Your task to perform on an android device: change your default location settings in chrome Image 0: 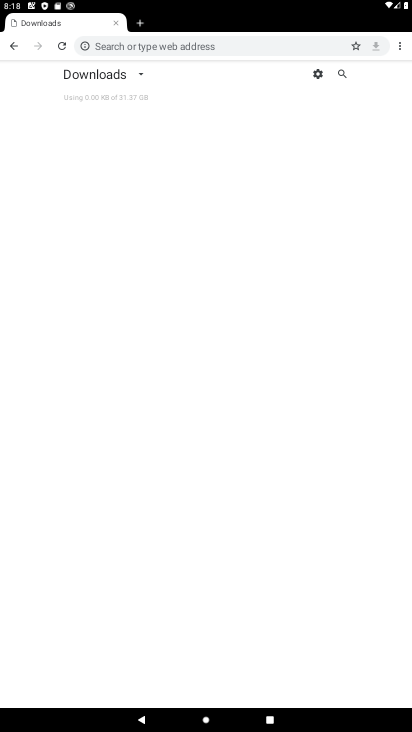
Step 0: press home button
Your task to perform on an android device: change your default location settings in chrome Image 1: 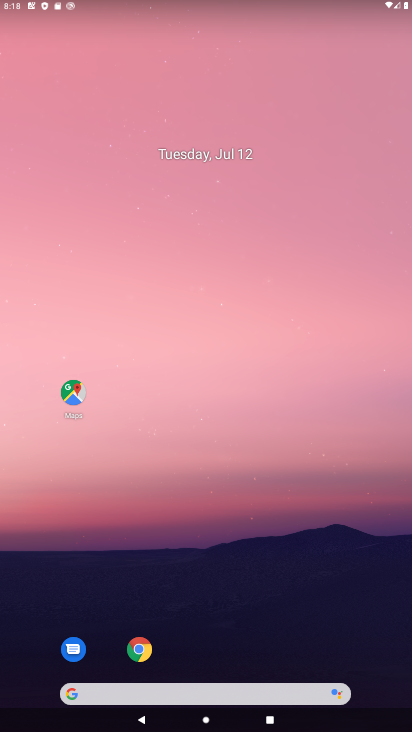
Step 1: click (138, 652)
Your task to perform on an android device: change your default location settings in chrome Image 2: 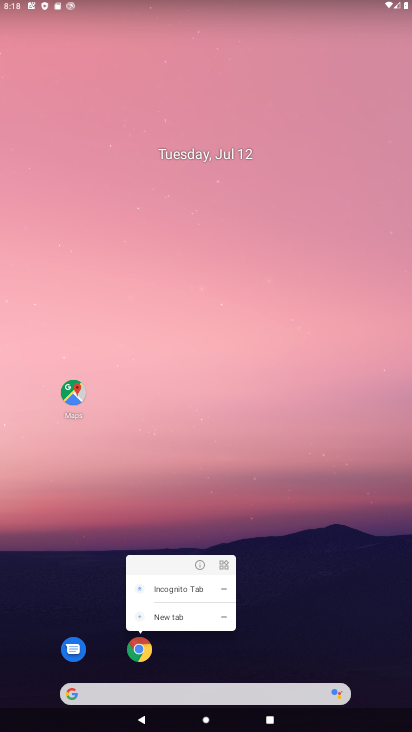
Step 2: click (137, 651)
Your task to perform on an android device: change your default location settings in chrome Image 3: 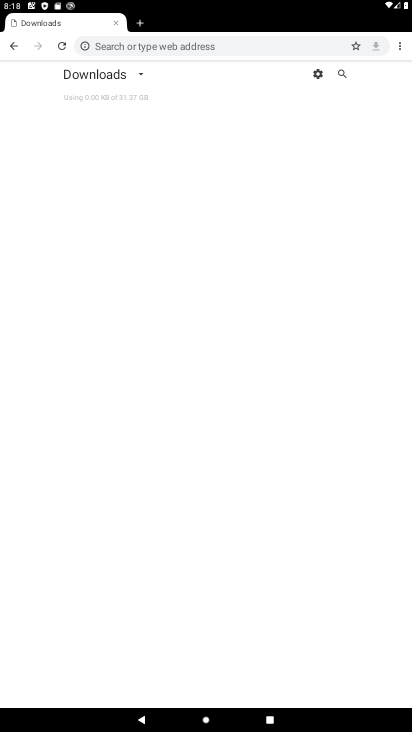
Step 3: click (399, 49)
Your task to perform on an android device: change your default location settings in chrome Image 4: 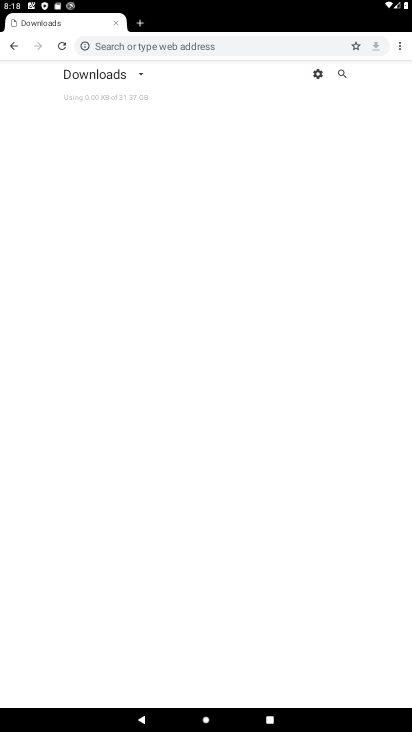
Step 4: click (399, 49)
Your task to perform on an android device: change your default location settings in chrome Image 5: 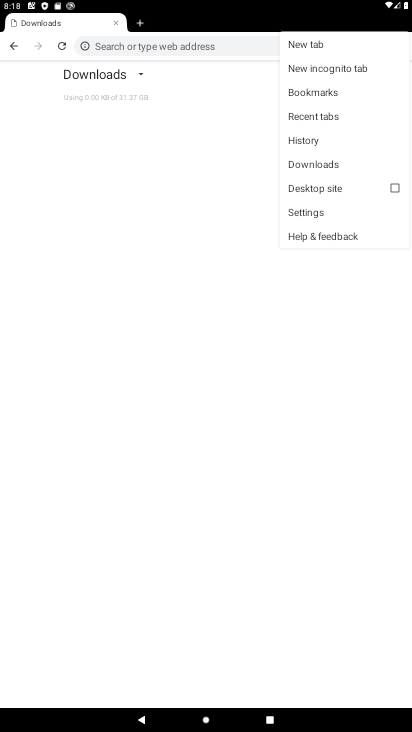
Step 5: click (313, 213)
Your task to perform on an android device: change your default location settings in chrome Image 6: 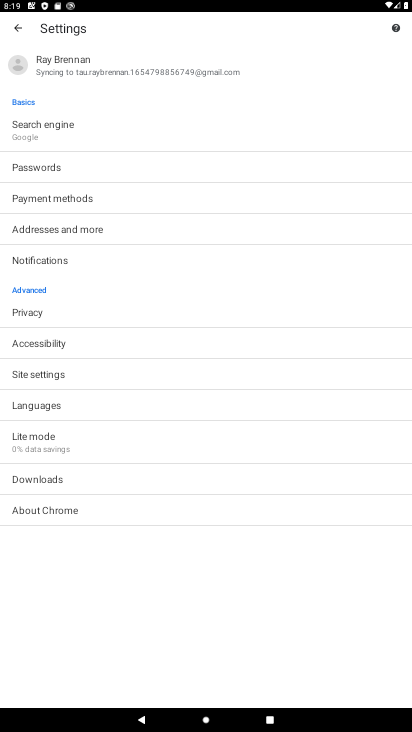
Step 6: click (36, 373)
Your task to perform on an android device: change your default location settings in chrome Image 7: 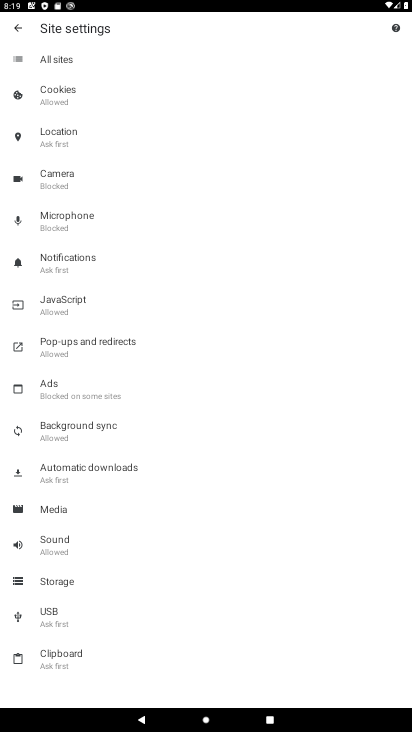
Step 7: click (79, 142)
Your task to perform on an android device: change your default location settings in chrome Image 8: 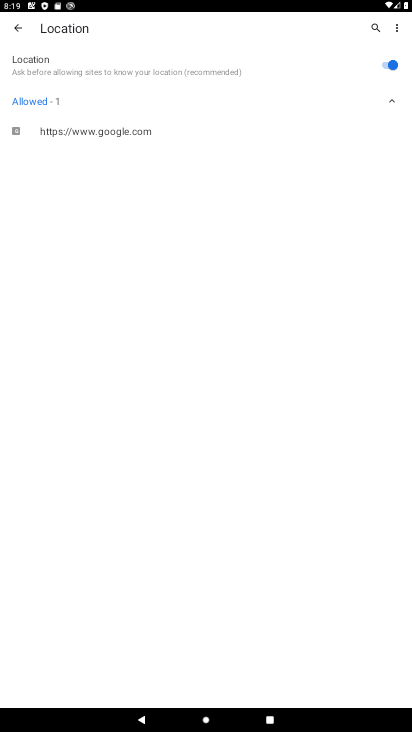
Step 8: click (391, 62)
Your task to perform on an android device: change your default location settings in chrome Image 9: 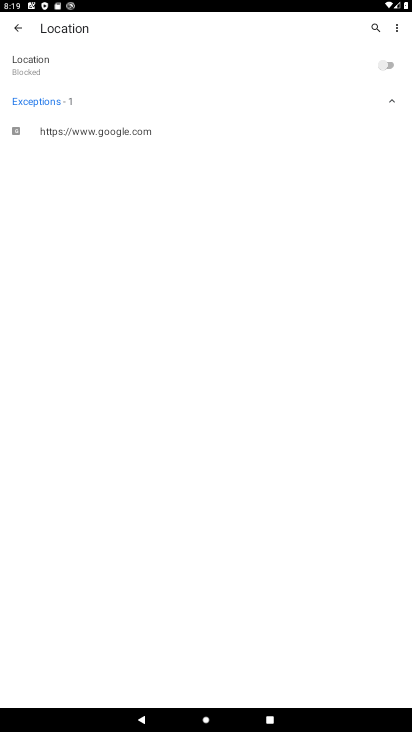
Step 9: task complete